Your task to perform on an android device: turn off wifi Image 0: 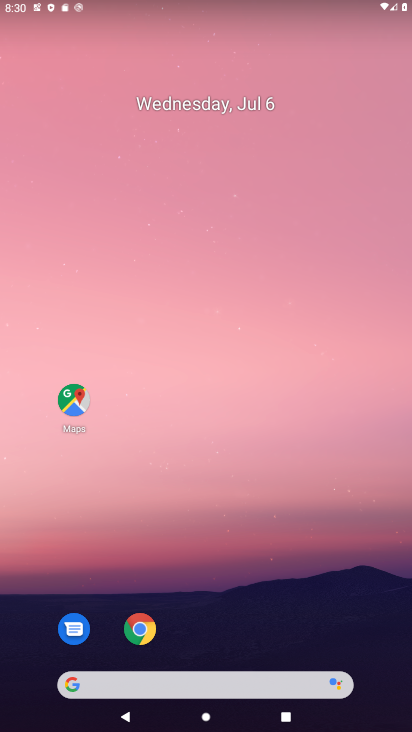
Step 0: drag from (234, 727) to (218, 87)
Your task to perform on an android device: turn off wifi Image 1: 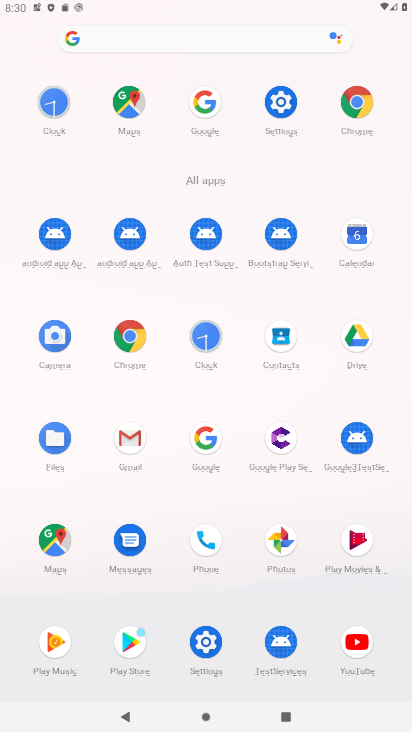
Step 1: click (274, 104)
Your task to perform on an android device: turn off wifi Image 2: 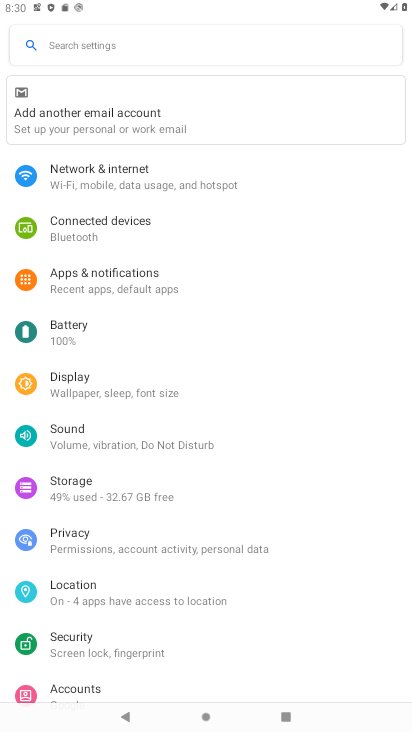
Step 2: click (147, 184)
Your task to perform on an android device: turn off wifi Image 3: 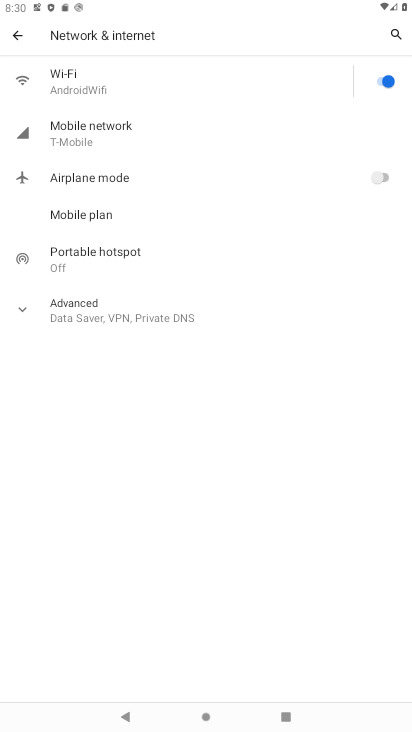
Step 3: click (382, 80)
Your task to perform on an android device: turn off wifi Image 4: 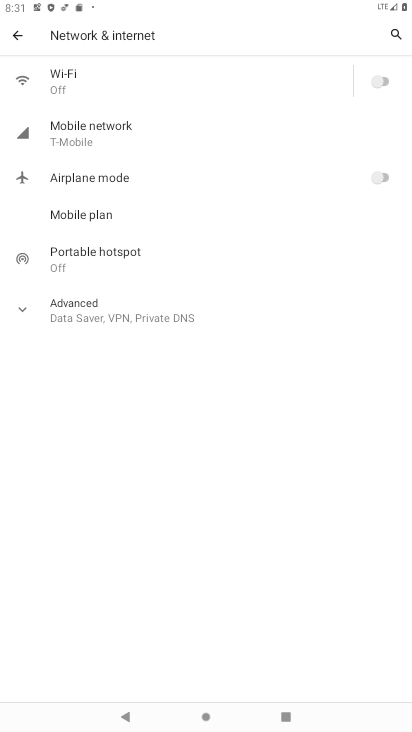
Step 4: task complete